Your task to perform on an android device: Clear the cart on amazon.com. Search for razer deathadder on amazon.com, select the first entry, and add it to the cart. Image 0: 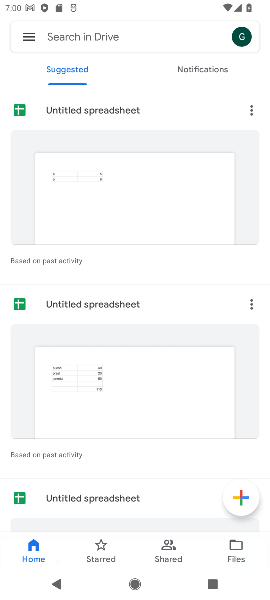
Step 0: press home button
Your task to perform on an android device: Clear the cart on amazon.com. Search for razer deathadder on amazon.com, select the first entry, and add it to the cart. Image 1: 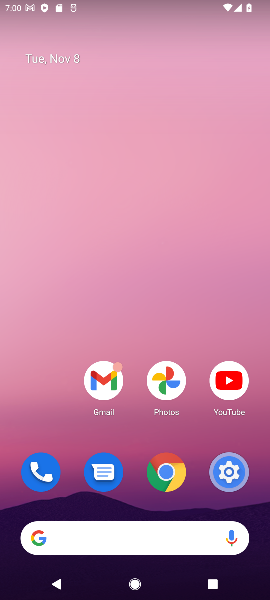
Step 1: click (173, 469)
Your task to perform on an android device: Clear the cart on amazon.com. Search for razer deathadder on amazon.com, select the first entry, and add it to the cart. Image 2: 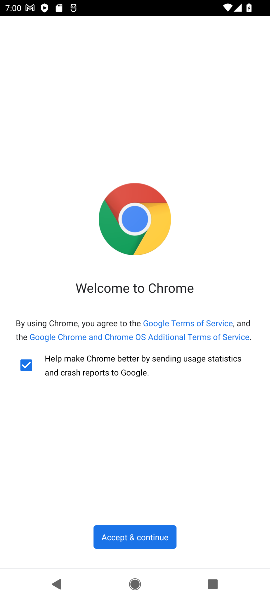
Step 2: click (160, 539)
Your task to perform on an android device: Clear the cart on amazon.com. Search for razer deathadder on amazon.com, select the first entry, and add it to the cart. Image 3: 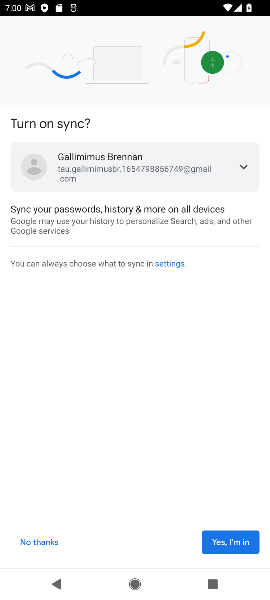
Step 3: click (221, 539)
Your task to perform on an android device: Clear the cart on amazon.com. Search for razer deathadder on amazon.com, select the first entry, and add it to the cart. Image 4: 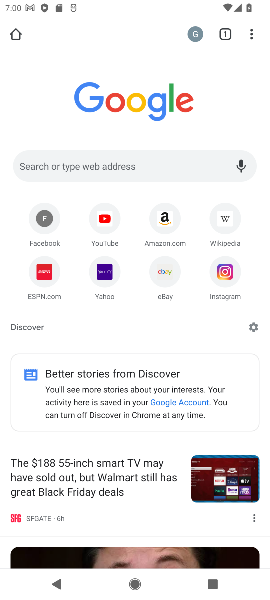
Step 4: click (65, 162)
Your task to perform on an android device: Clear the cart on amazon.com. Search for razer deathadder on amazon.com, select the first entry, and add it to the cart. Image 5: 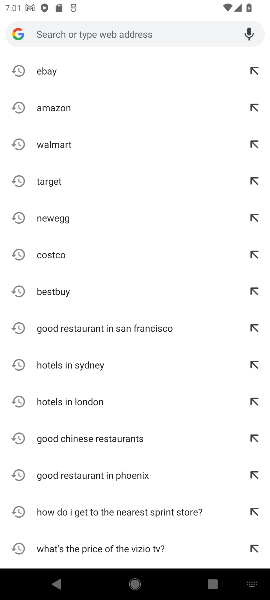
Step 5: click (50, 104)
Your task to perform on an android device: Clear the cart on amazon.com. Search for razer deathadder on amazon.com, select the first entry, and add it to the cart. Image 6: 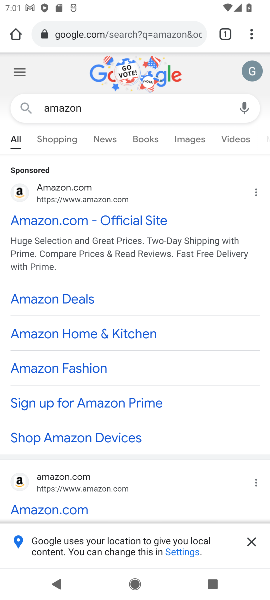
Step 6: click (64, 218)
Your task to perform on an android device: Clear the cart on amazon.com. Search for razer deathadder on amazon.com, select the first entry, and add it to the cart. Image 7: 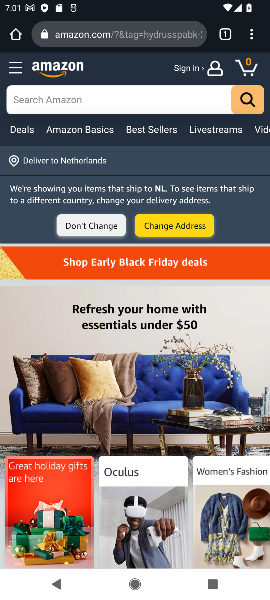
Step 7: click (21, 93)
Your task to perform on an android device: Clear the cart on amazon.com. Search for razer deathadder on amazon.com, select the first entry, and add it to the cart. Image 8: 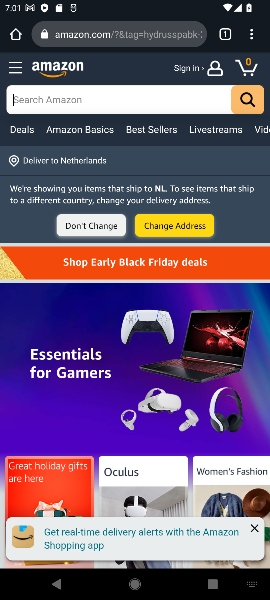
Step 8: type " razer deathadder"
Your task to perform on an android device: Clear the cart on amazon.com. Search for razer deathadder on amazon.com, select the first entry, and add it to the cart. Image 9: 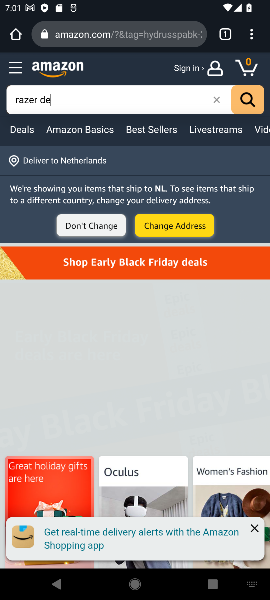
Step 9: press enter
Your task to perform on an android device: Clear the cart on amazon.com. Search for razer deathadder on amazon.com, select the first entry, and add it to the cart. Image 10: 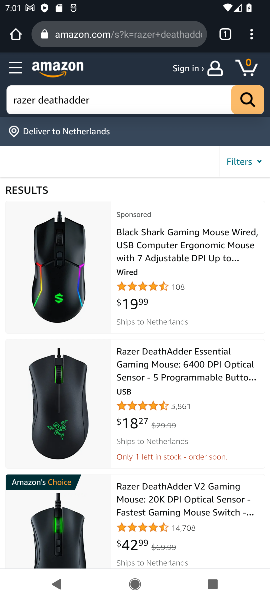
Step 10: click (201, 251)
Your task to perform on an android device: Clear the cart on amazon.com. Search for razer deathadder on amazon.com, select the first entry, and add it to the cart. Image 11: 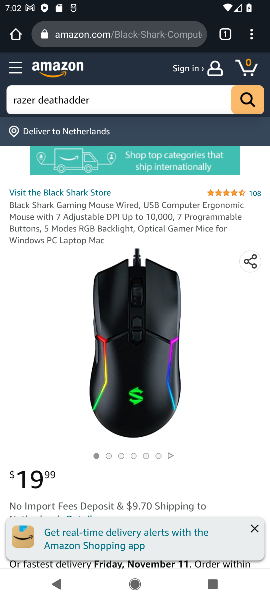
Step 11: task complete